Your task to perform on an android device: change your default location settings in chrome Image 0: 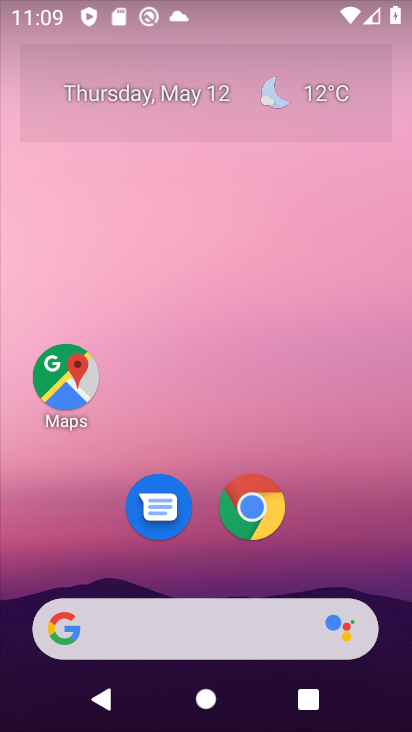
Step 0: click (253, 498)
Your task to perform on an android device: change your default location settings in chrome Image 1: 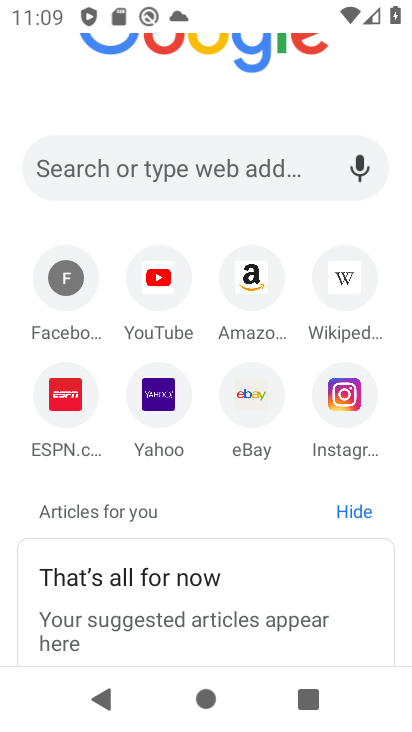
Step 1: drag from (270, 254) to (270, 619)
Your task to perform on an android device: change your default location settings in chrome Image 2: 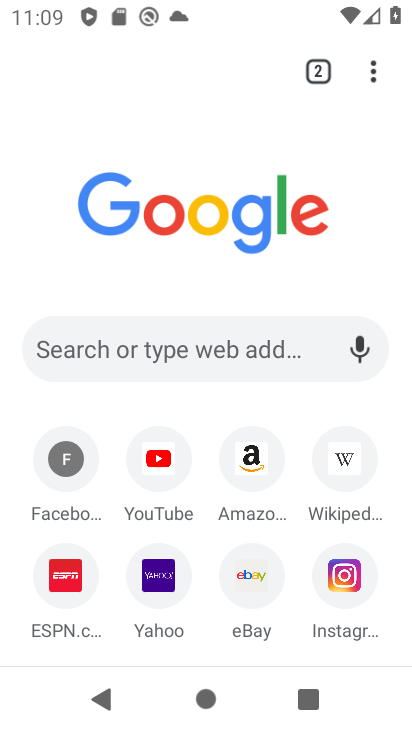
Step 2: click (379, 69)
Your task to perform on an android device: change your default location settings in chrome Image 3: 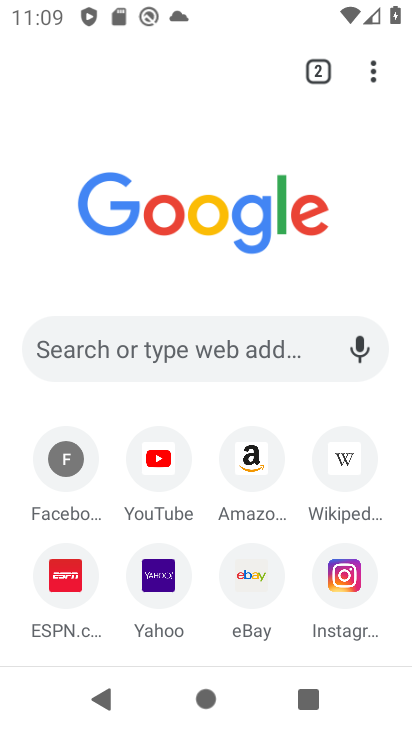
Step 3: click (382, 69)
Your task to perform on an android device: change your default location settings in chrome Image 4: 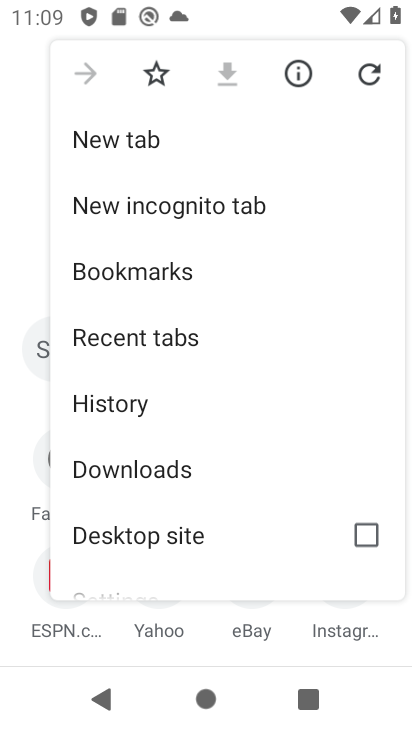
Step 4: drag from (143, 478) to (190, 231)
Your task to perform on an android device: change your default location settings in chrome Image 5: 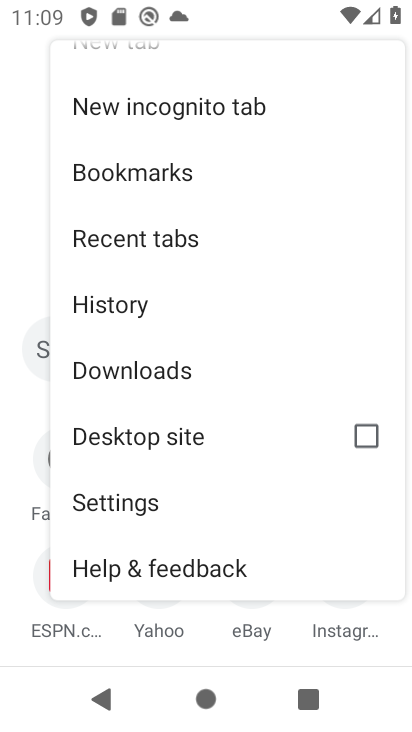
Step 5: click (141, 508)
Your task to perform on an android device: change your default location settings in chrome Image 6: 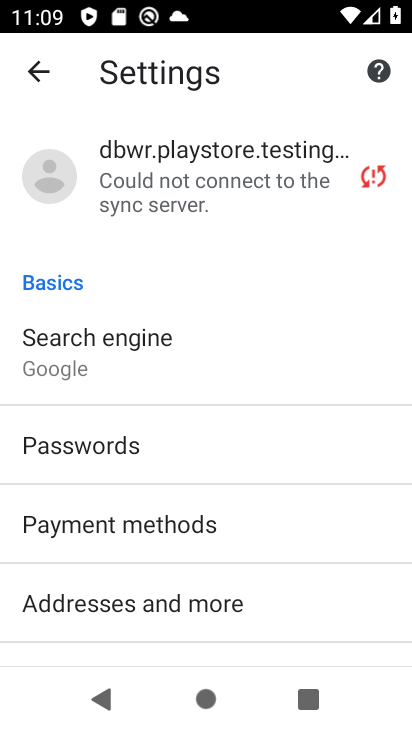
Step 6: drag from (131, 488) to (185, 229)
Your task to perform on an android device: change your default location settings in chrome Image 7: 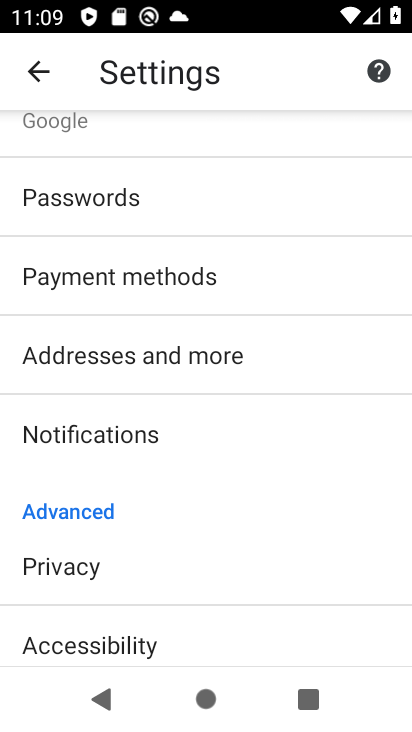
Step 7: drag from (152, 573) to (196, 339)
Your task to perform on an android device: change your default location settings in chrome Image 8: 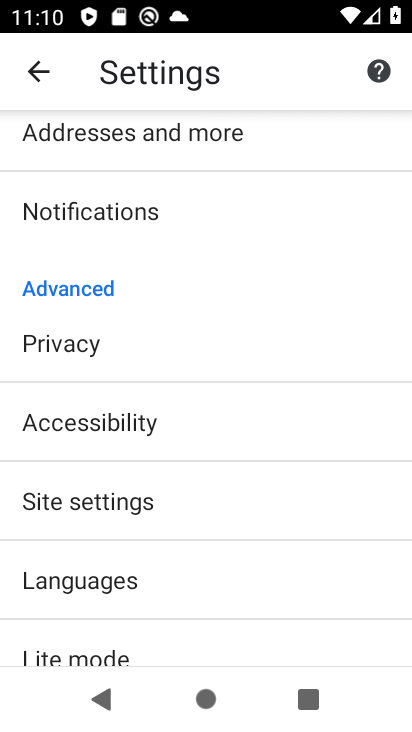
Step 8: drag from (157, 563) to (182, 400)
Your task to perform on an android device: change your default location settings in chrome Image 9: 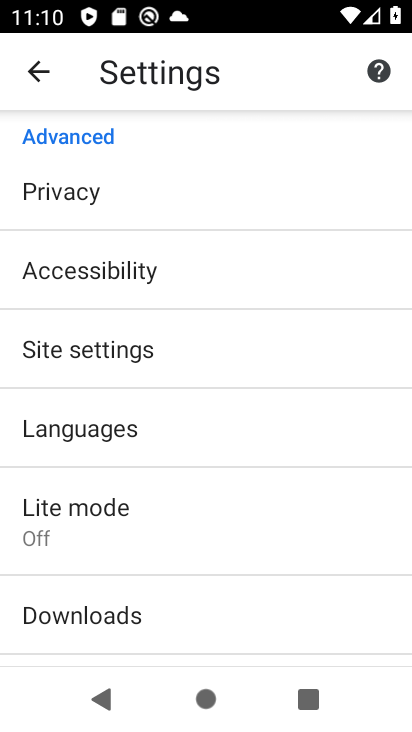
Step 9: click (132, 362)
Your task to perform on an android device: change your default location settings in chrome Image 10: 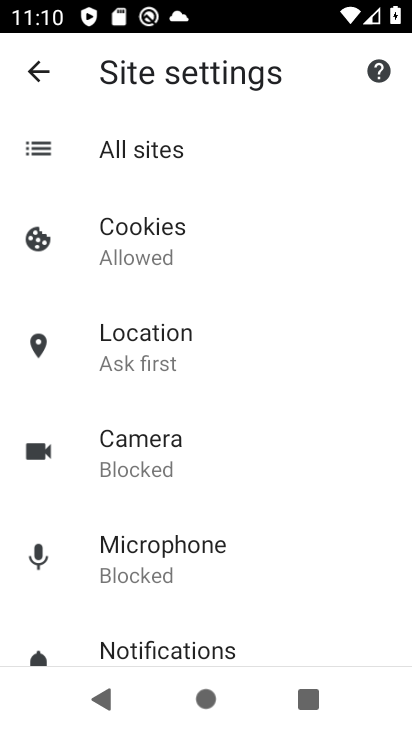
Step 10: click (163, 365)
Your task to perform on an android device: change your default location settings in chrome Image 11: 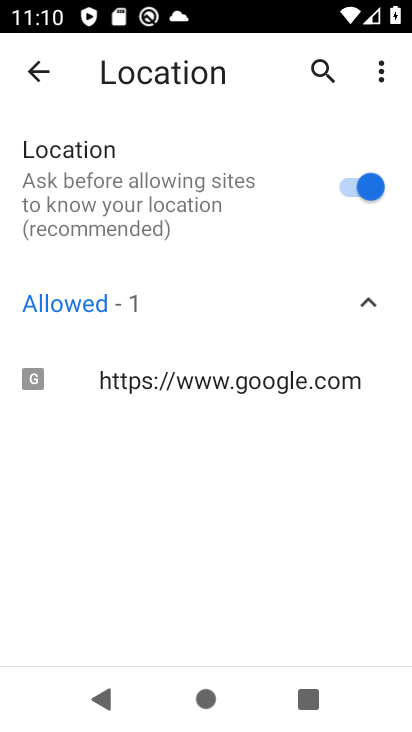
Step 11: click (346, 188)
Your task to perform on an android device: change your default location settings in chrome Image 12: 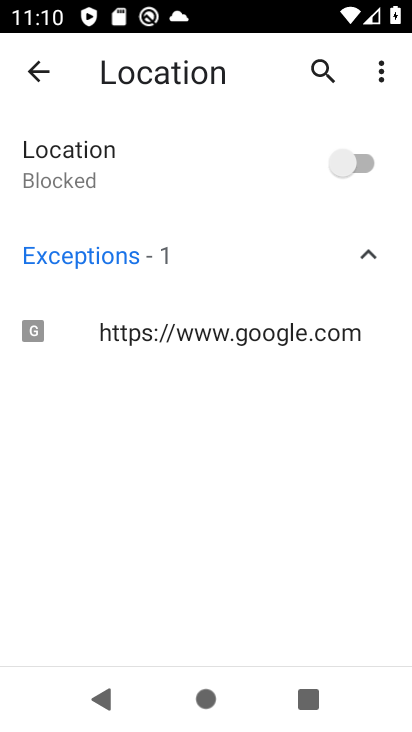
Step 12: click (382, 151)
Your task to perform on an android device: change your default location settings in chrome Image 13: 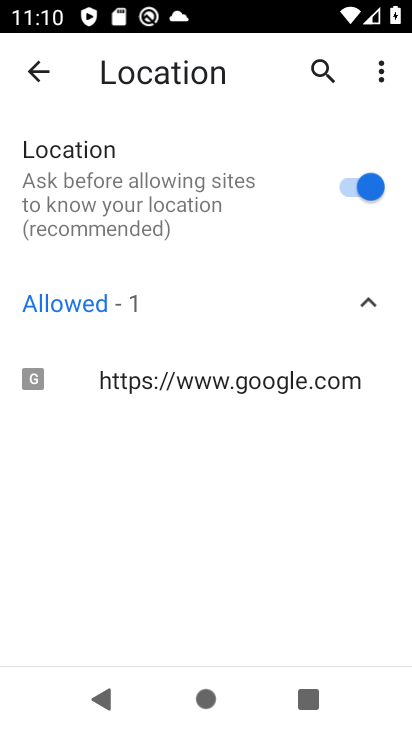
Step 13: task complete